Your task to perform on an android device: turn off improve location accuracy Image 0: 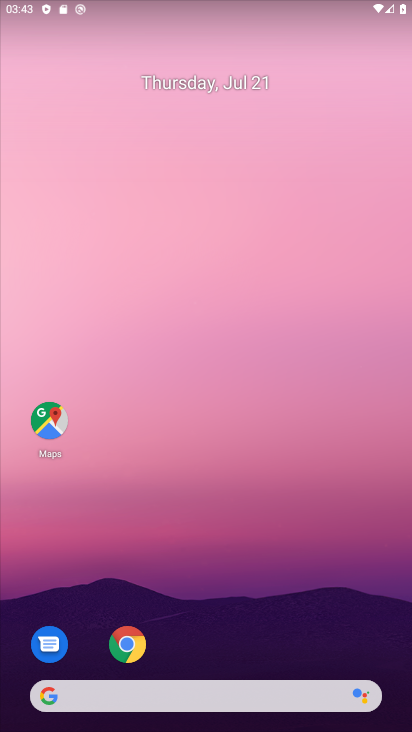
Step 0: drag from (307, 668) to (328, 48)
Your task to perform on an android device: turn off improve location accuracy Image 1: 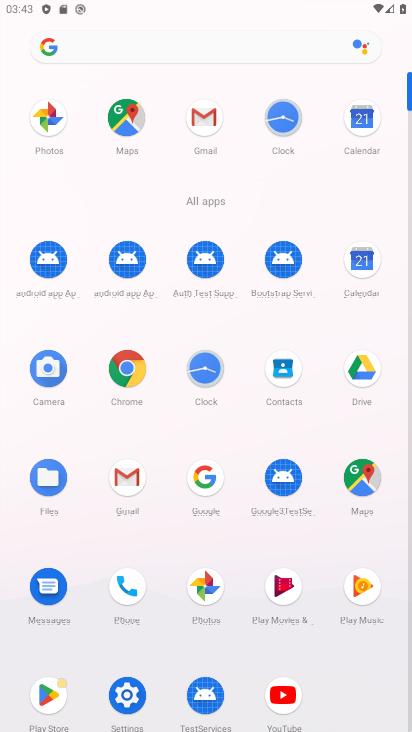
Step 1: click (124, 688)
Your task to perform on an android device: turn off improve location accuracy Image 2: 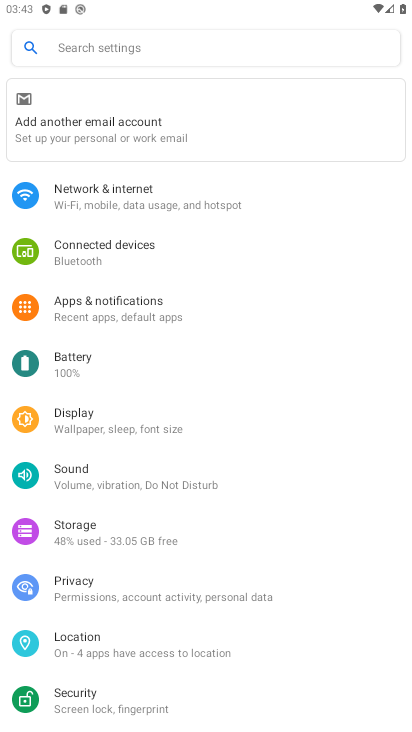
Step 2: click (86, 637)
Your task to perform on an android device: turn off improve location accuracy Image 3: 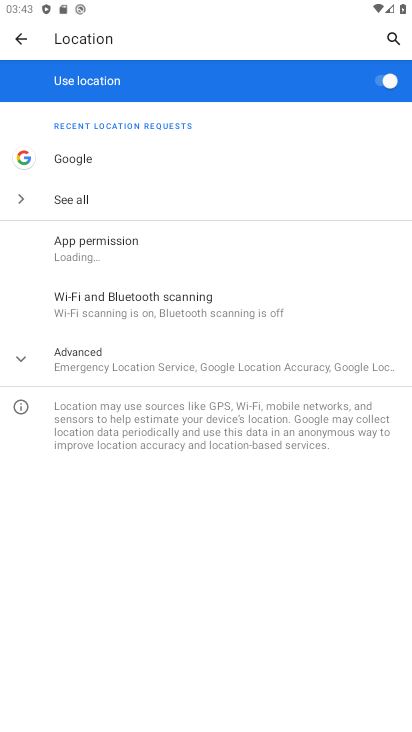
Step 3: click (19, 359)
Your task to perform on an android device: turn off improve location accuracy Image 4: 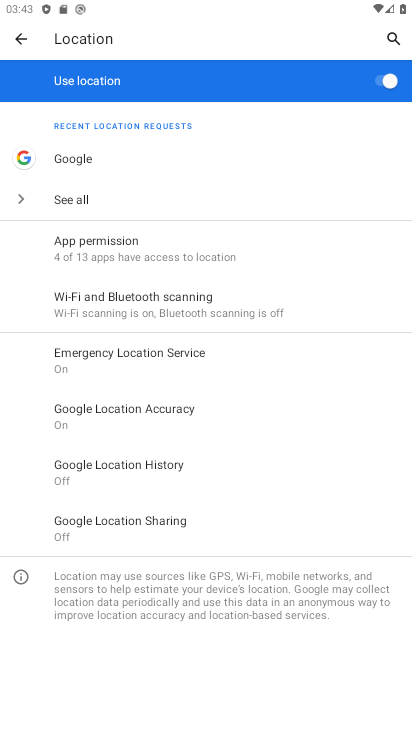
Step 4: click (85, 418)
Your task to perform on an android device: turn off improve location accuracy Image 5: 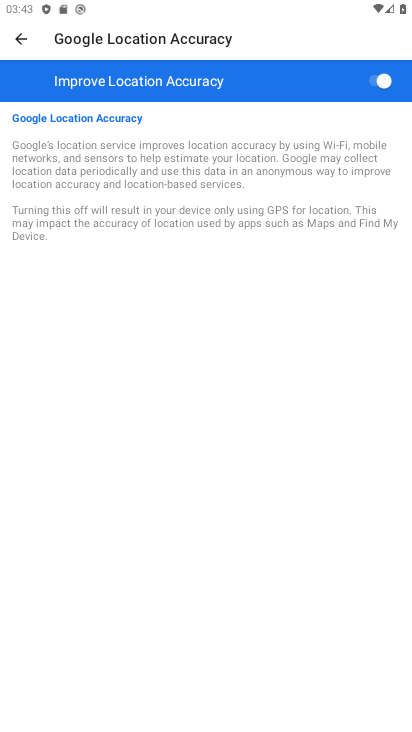
Step 5: click (388, 89)
Your task to perform on an android device: turn off improve location accuracy Image 6: 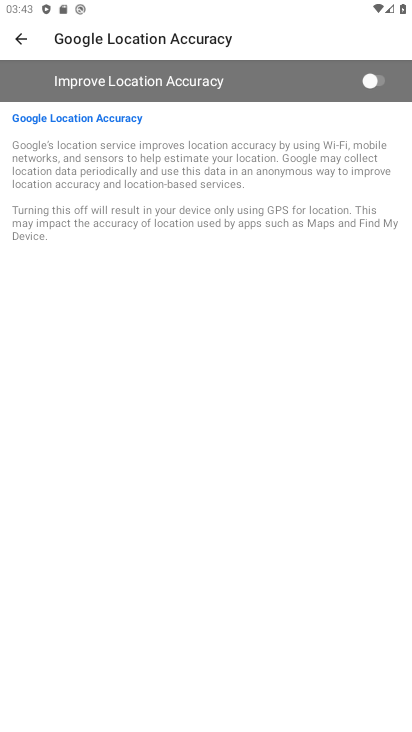
Step 6: task complete